Your task to perform on an android device: make emails show in primary in the gmail app Image 0: 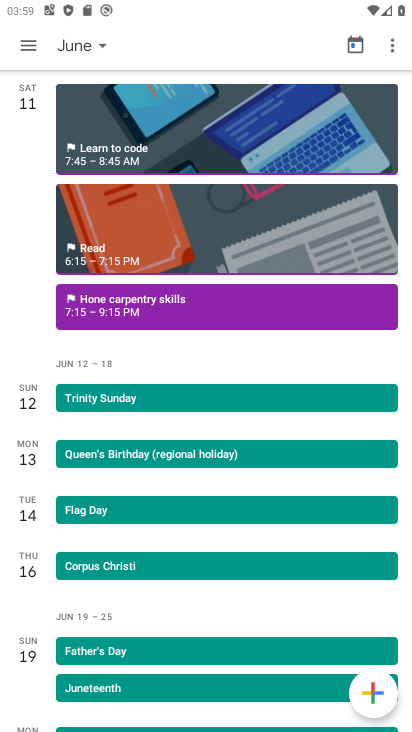
Step 0: press home button
Your task to perform on an android device: make emails show in primary in the gmail app Image 1: 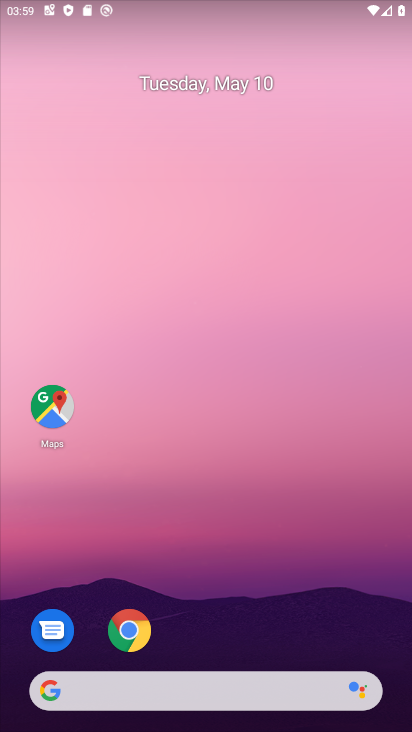
Step 1: drag from (259, 613) to (316, 64)
Your task to perform on an android device: make emails show in primary in the gmail app Image 2: 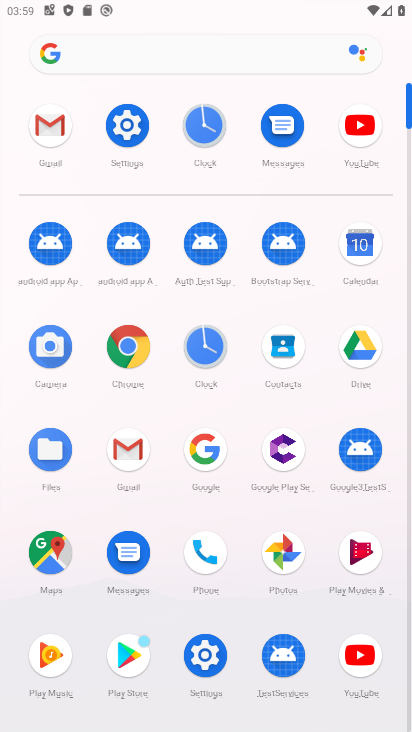
Step 2: click (111, 436)
Your task to perform on an android device: make emails show in primary in the gmail app Image 3: 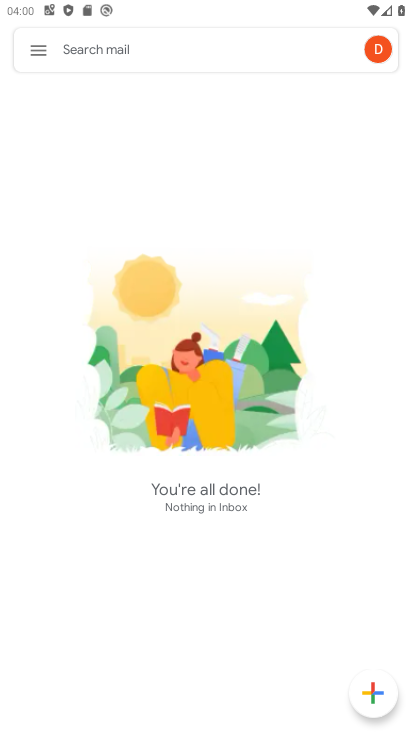
Step 3: click (43, 43)
Your task to perform on an android device: make emails show in primary in the gmail app Image 4: 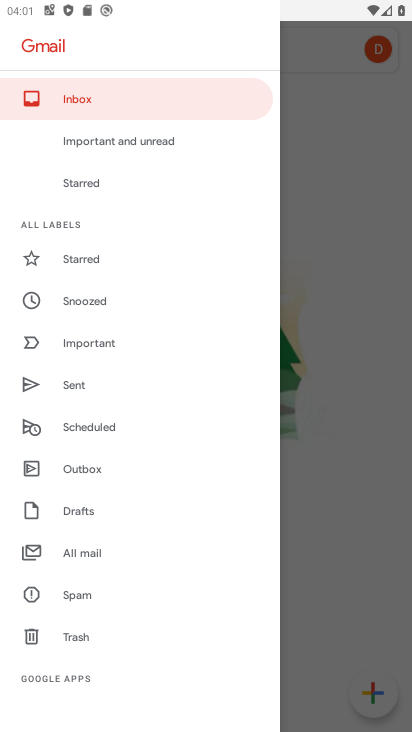
Step 4: task complete